Your task to perform on an android device: check battery use Image 0: 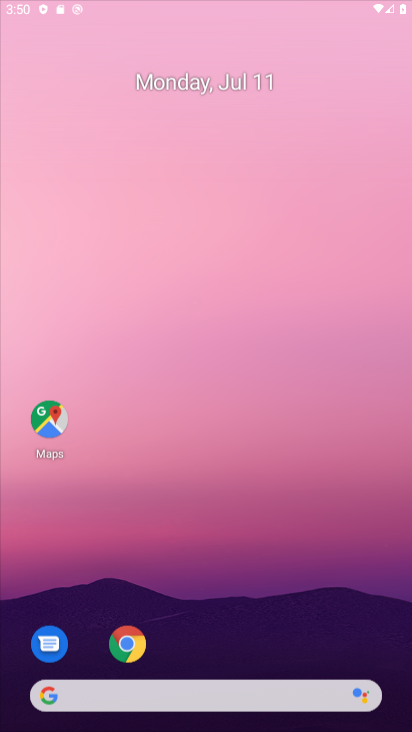
Step 0: press home button
Your task to perform on an android device: check battery use Image 1: 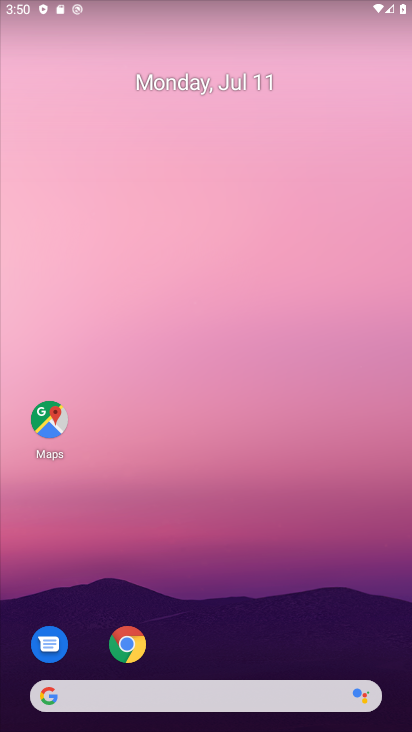
Step 1: click (133, 636)
Your task to perform on an android device: check battery use Image 2: 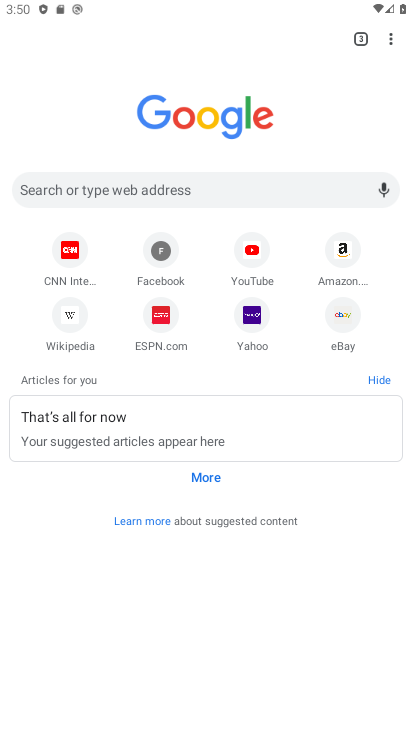
Step 2: press home button
Your task to perform on an android device: check battery use Image 3: 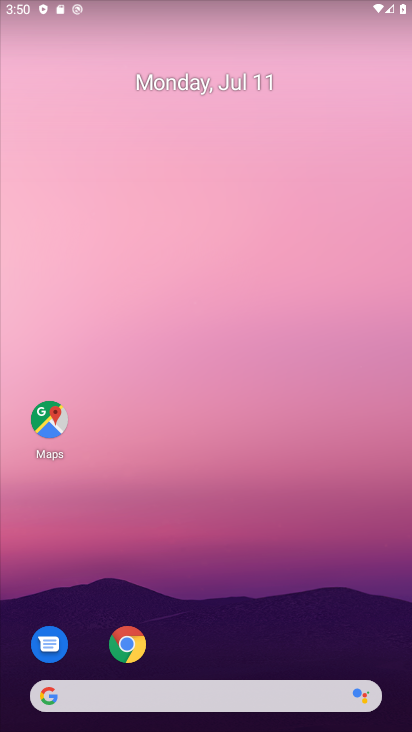
Step 3: drag from (237, 666) to (231, 55)
Your task to perform on an android device: check battery use Image 4: 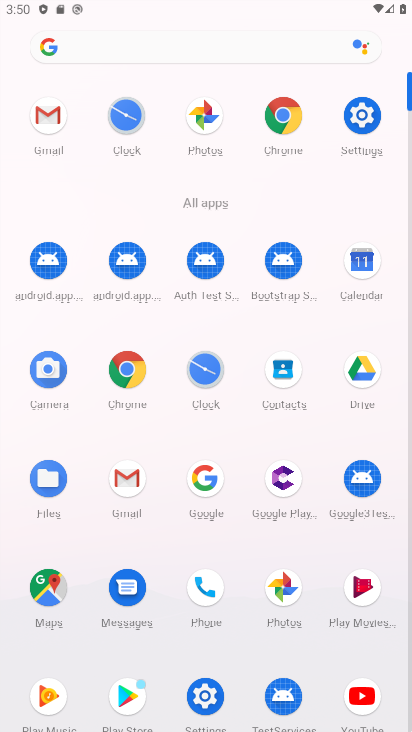
Step 4: click (361, 105)
Your task to perform on an android device: check battery use Image 5: 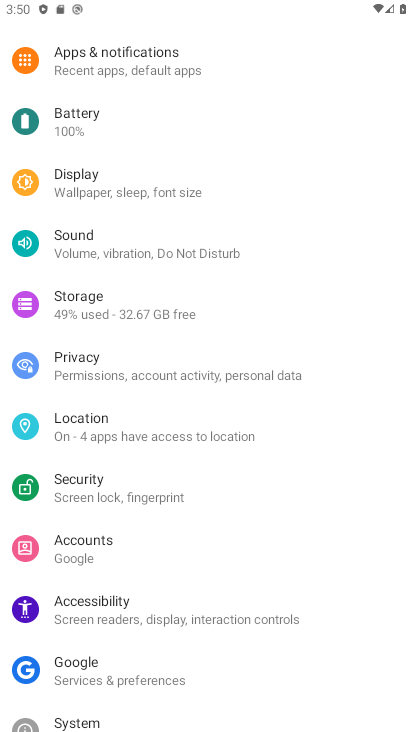
Step 5: click (117, 119)
Your task to perform on an android device: check battery use Image 6: 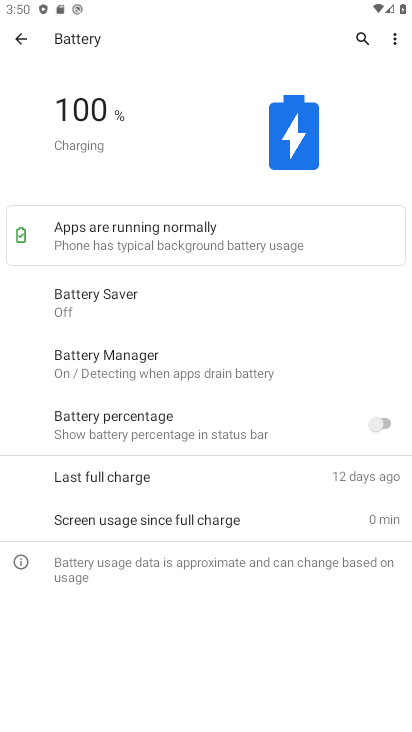
Step 6: click (391, 36)
Your task to perform on an android device: check battery use Image 7: 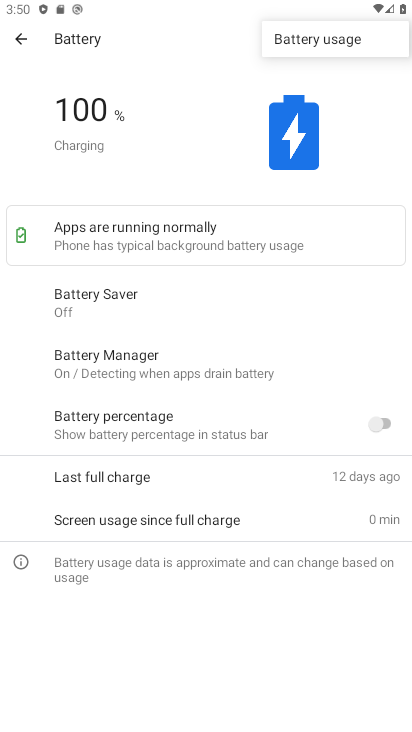
Step 7: click (314, 38)
Your task to perform on an android device: check battery use Image 8: 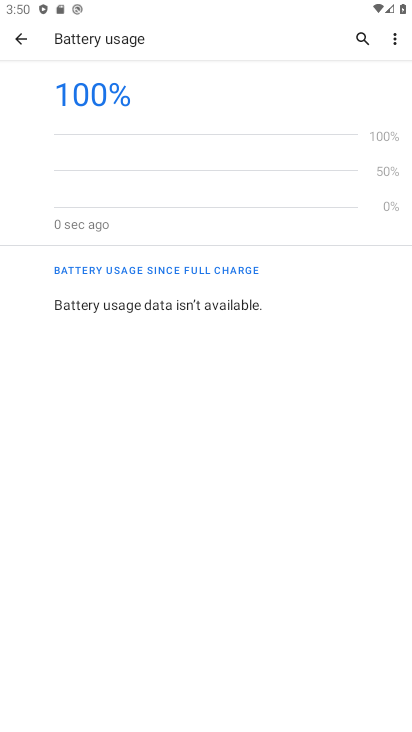
Step 8: task complete